Your task to perform on an android device: make emails show in primary in the gmail app Image 0: 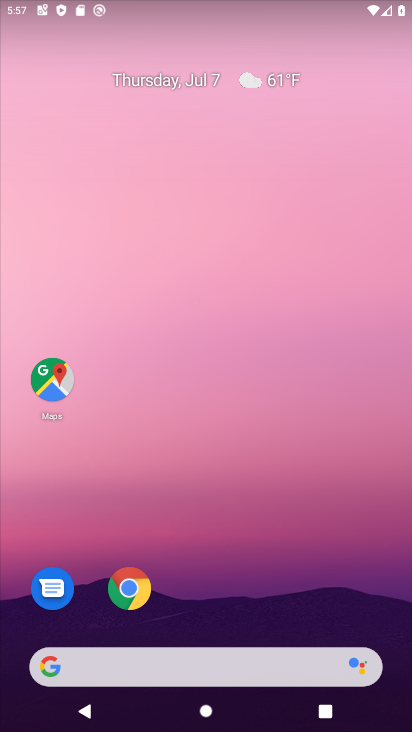
Step 0: drag from (312, 549) to (287, 0)
Your task to perform on an android device: make emails show in primary in the gmail app Image 1: 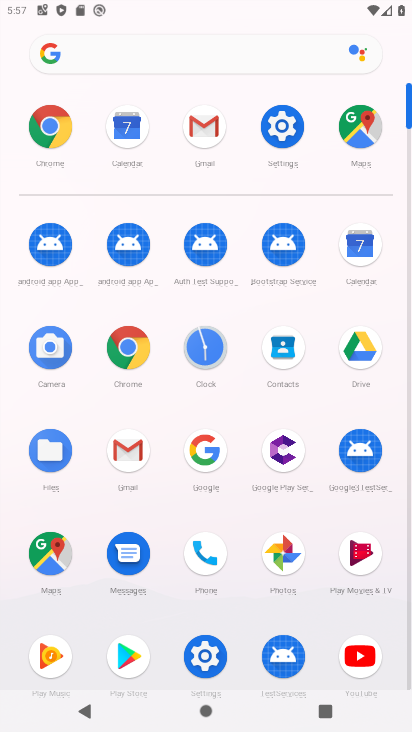
Step 1: click (192, 125)
Your task to perform on an android device: make emails show in primary in the gmail app Image 2: 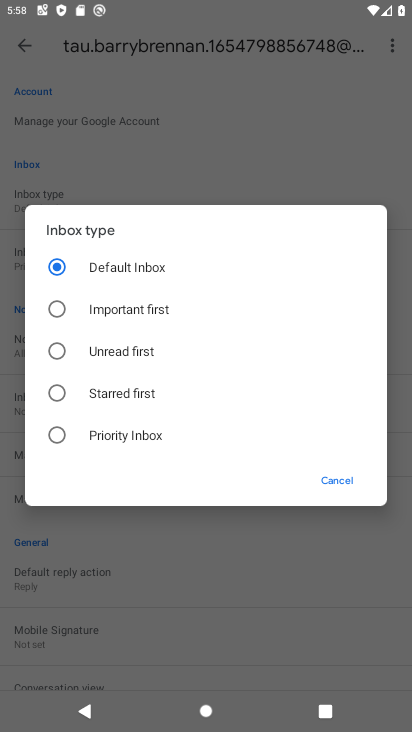
Step 2: click (323, 466)
Your task to perform on an android device: make emails show in primary in the gmail app Image 3: 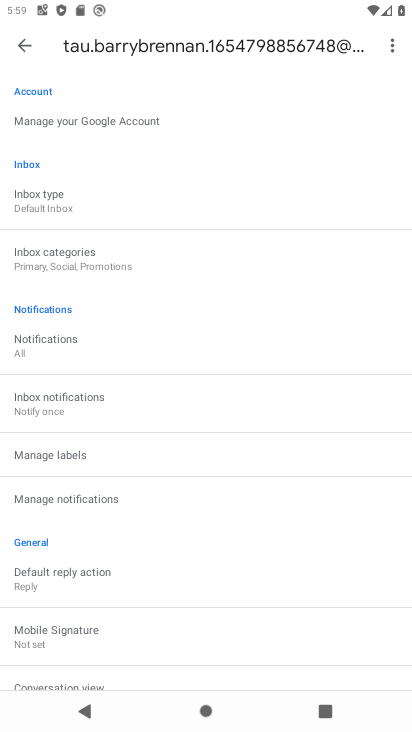
Step 3: click (81, 265)
Your task to perform on an android device: make emails show in primary in the gmail app Image 4: 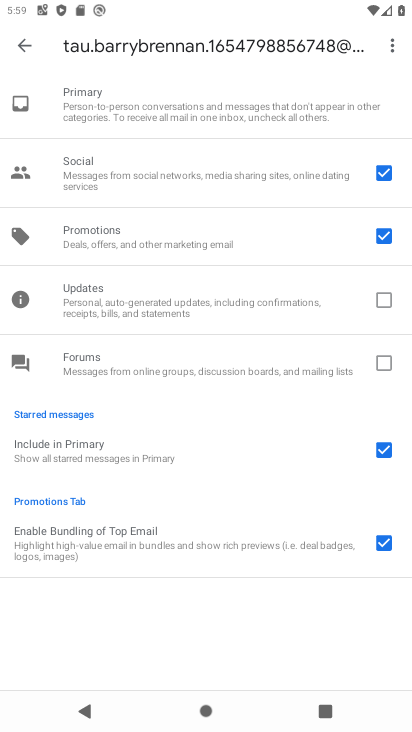
Step 4: task complete